Your task to perform on an android device: Go to Yahoo.com Image 0: 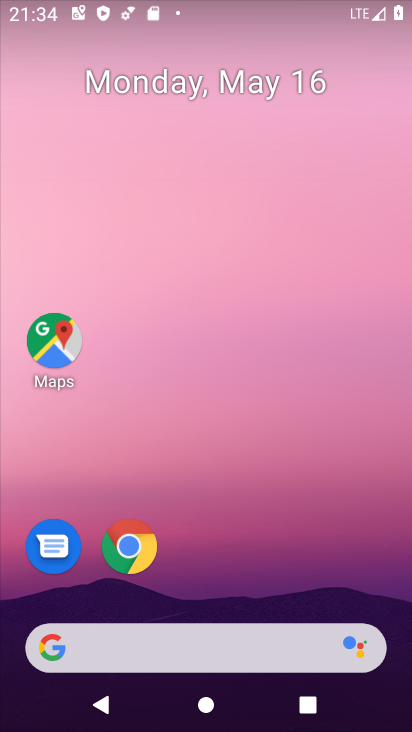
Step 0: drag from (282, 664) to (223, 333)
Your task to perform on an android device: Go to Yahoo.com Image 1: 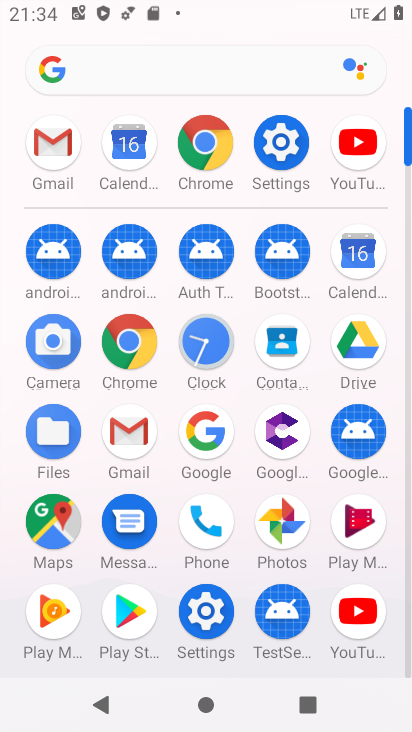
Step 1: click (218, 147)
Your task to perform on an android device: Go to Yahoo.com Image 2: 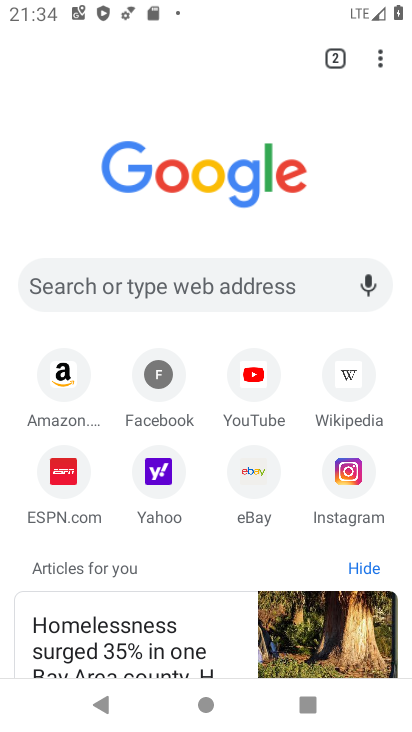
Step 2: click (154, 476)
Your task to perform on an android device: Go to Yahoo.com Image 3: 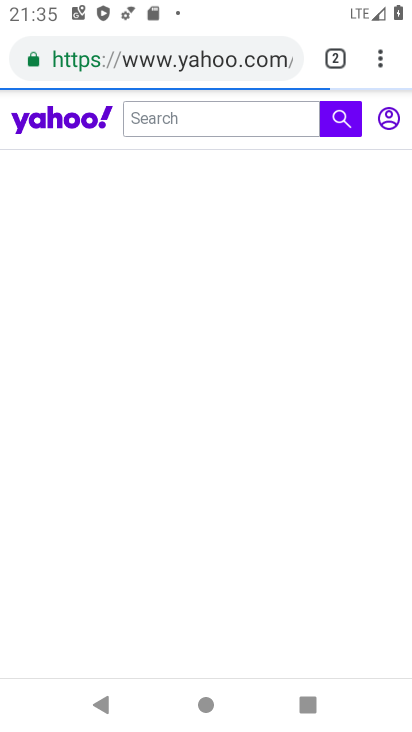
Step 3: task complete